Your task to perform on an android device: change the clock style Image 0: 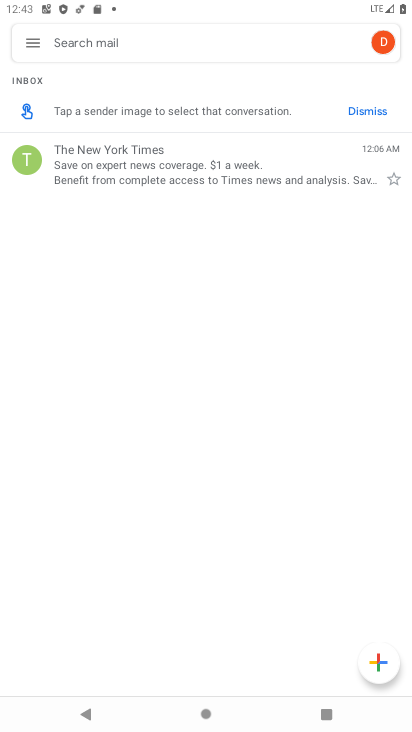
Step 0: press home button
Your task to perform on an android device: change the clock style Image 1: 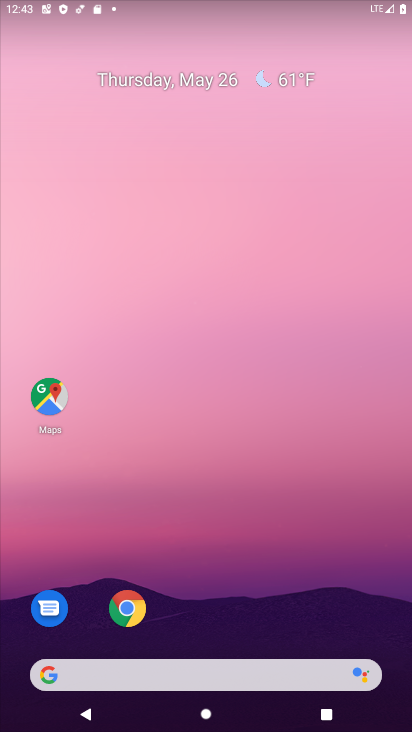
Step 1: drag from (341, 621) to (270, 190)
Your task to perform on an android device: change the clock style Image 2: 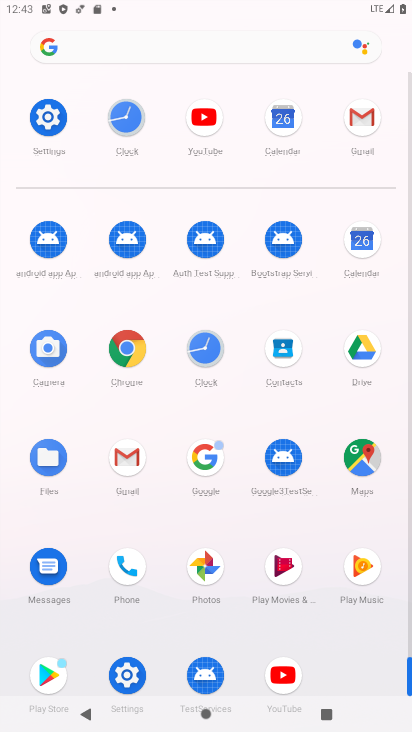
Step 2: click (206, 342)
Your task to perform on an android device: change the clock style Image 3: 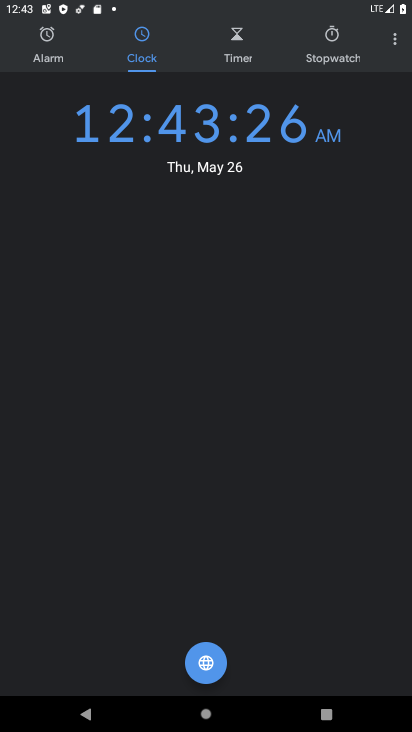
Step 3: click (395, 42)
Your task to perform on an android device: change the clock style Image 4: 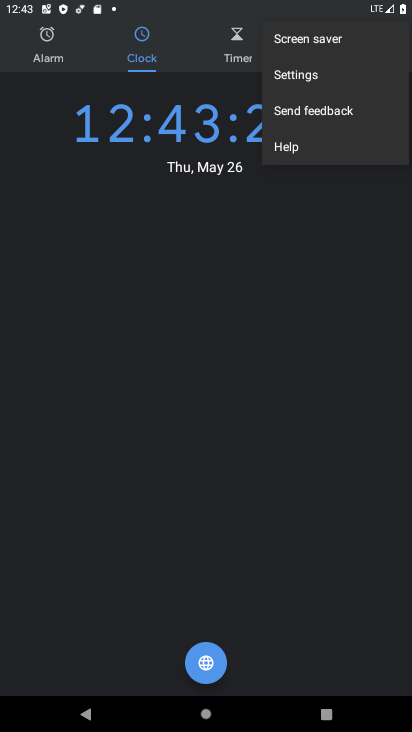
Step 4: click (295, 77)
Your task to perform on an android device: change the clock style Image 5: 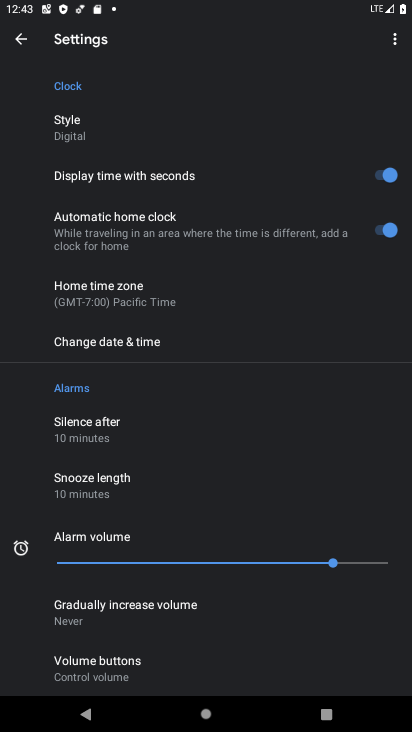
Step 5: click (70, 121)
Your task to perform on an android device: change the clock style Image 6: 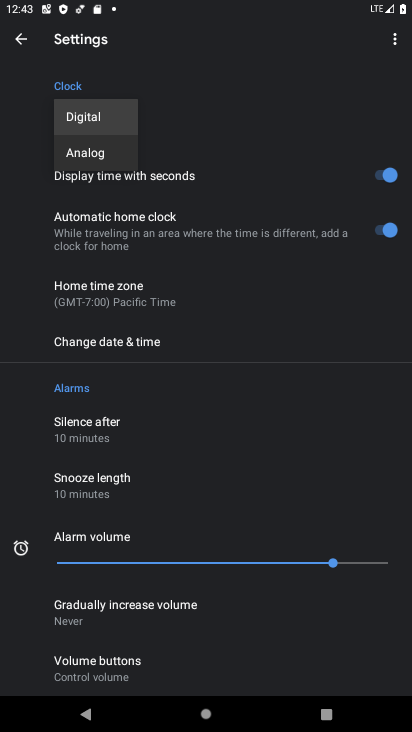
Step 6: click (79, 156)
Your task to perform on an android device: change the clock style Image 7: 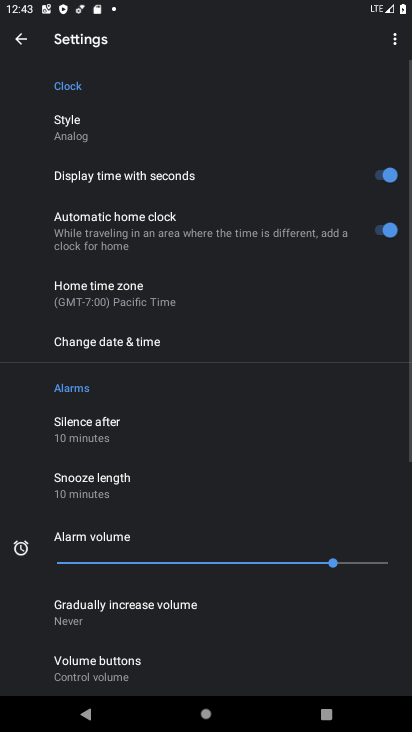
Step 7: task complete